Your task to perform on an android device: move an email to a new category in the gmail app Image 0: 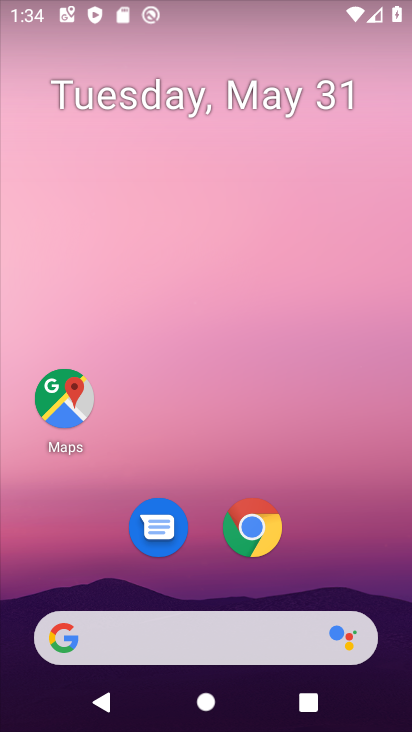
Step 0: drag from (355, 556) to (366, 162)
Your task to perform on an android device: move an email to a new category in the gmail app Image 1: 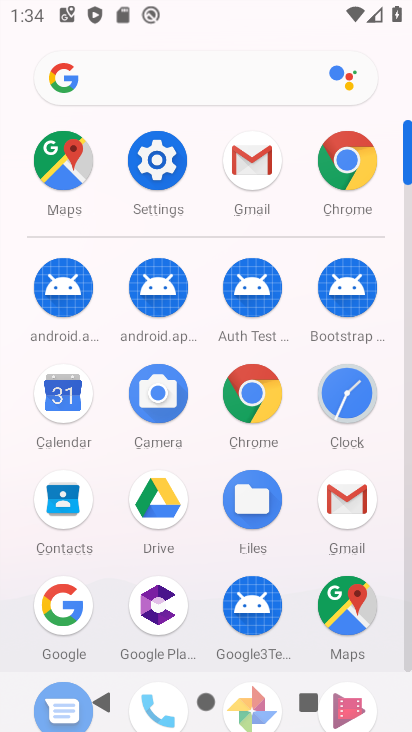
Step 1: click (168, 166)
Your task to perform on an android device: move an email to a new category in the gmail app Image 2: 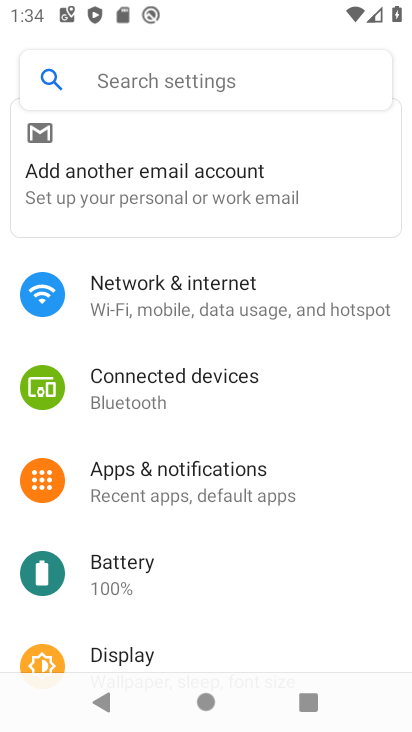
Step 2: press home button
Your task to perform on an android device: move an email to a new category in the gmail app Image 3: 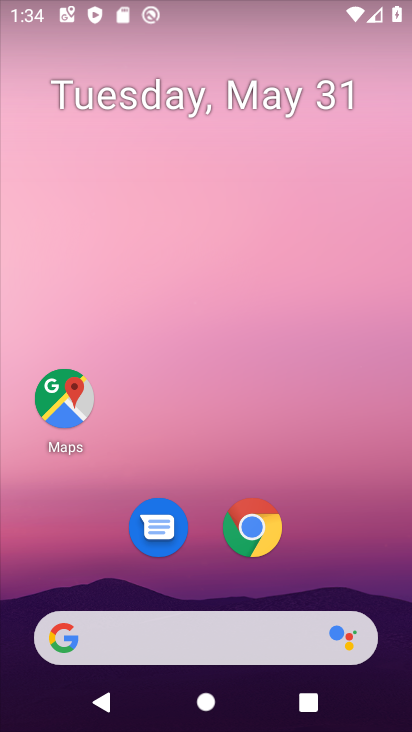
Step 3: drag from (340, 587) to (319, 155)
Your task to perform on an android device: move an email to a new category in the gmail app Image 4: 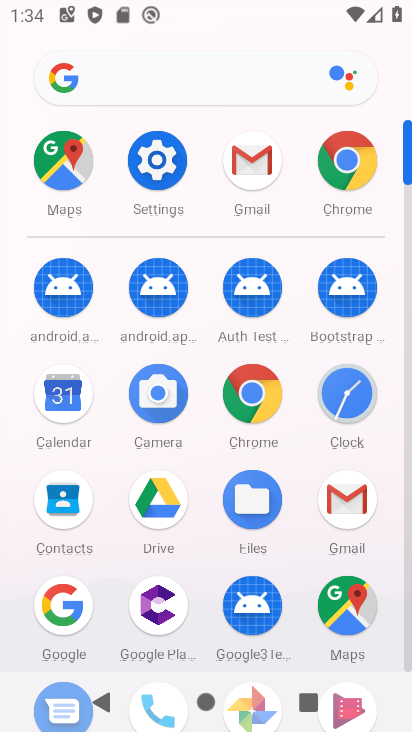
Step 4: click (247, 172)
Your task to perform on an android device: move an email to a new category in the gmail app Image 5: 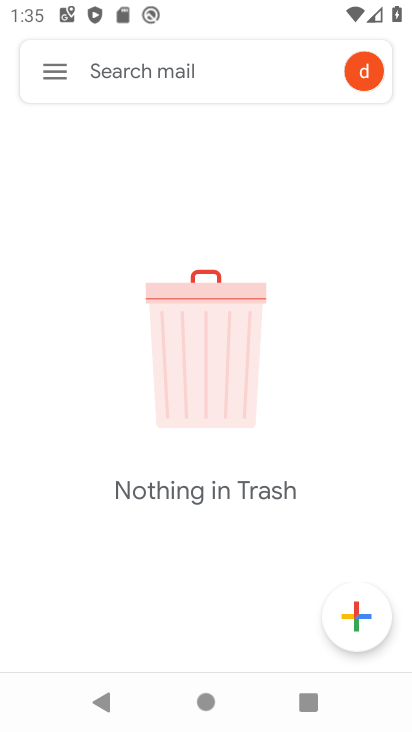
Step 5: click (74, 63)
Your task to perform on an android device: move an email to a new category in the gmail app Image 6: 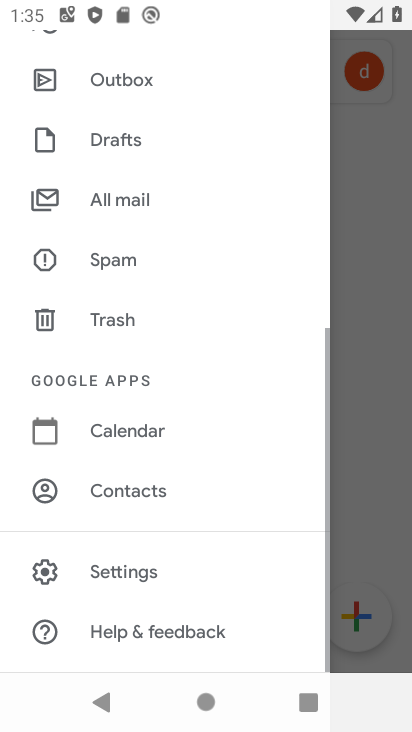
Step 6: drag from (83, 127) to (81, 551)
Your task to perform on an android device: move an email to a new category in the gmail app Image 7: 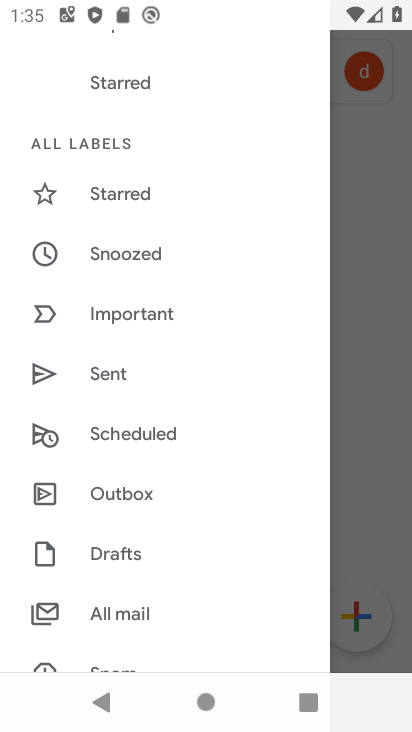
Step 7: drag from (175, 111) to (153, 541)
Your task to perform on an android device: move an email to a new category in the gmail app Image 8: 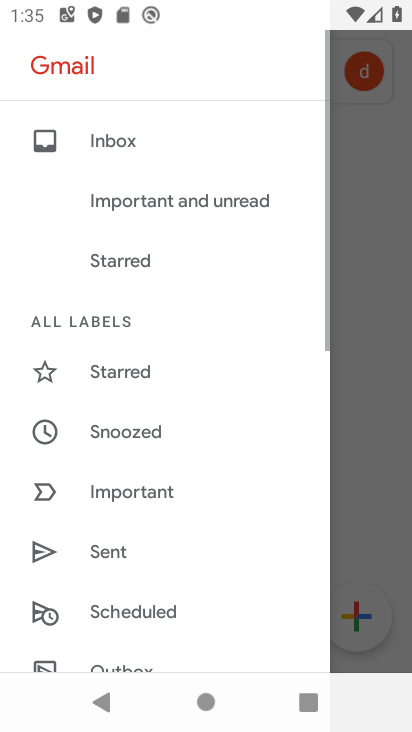
Step 8: click (94, 145)
Your task to perform on an android device: move an email to a new category in the gmail app Image 9: 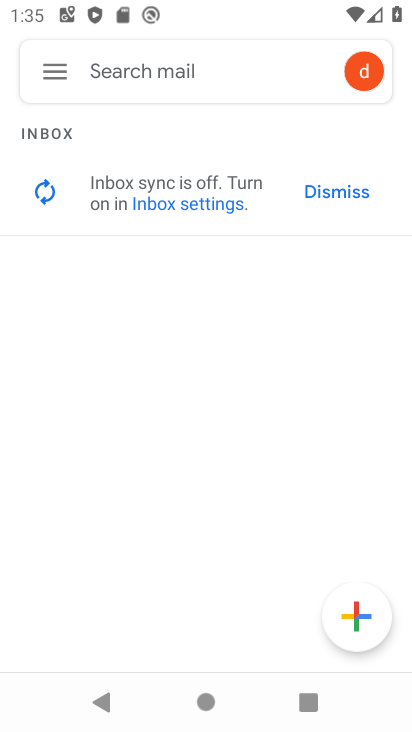
Step 9: task complete